Your task to perform on an android device: turn on location history Image 0: 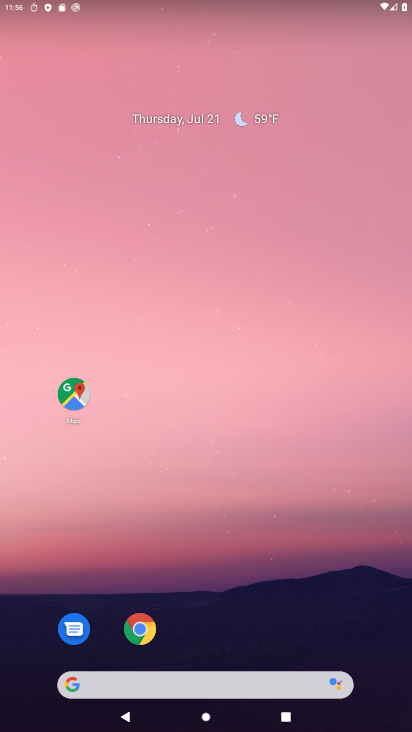
Step 0: drag from (241, 690) to (316, 86)
Your task to perform on an android device: turn on location history Image 1: 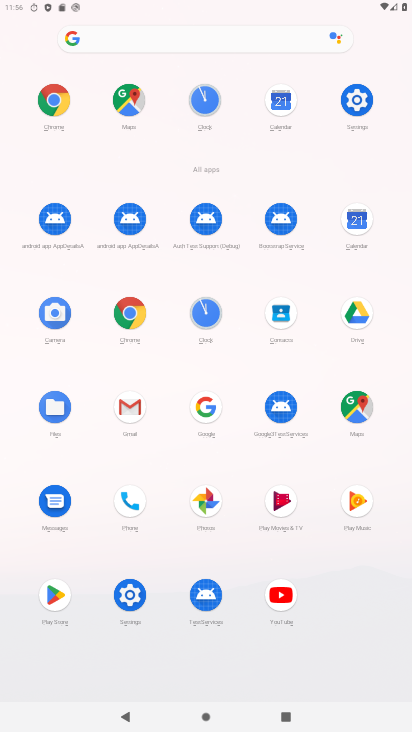
Step 1: click (345, 93)
Your task to perform on an android device: turn on location history Image 2: 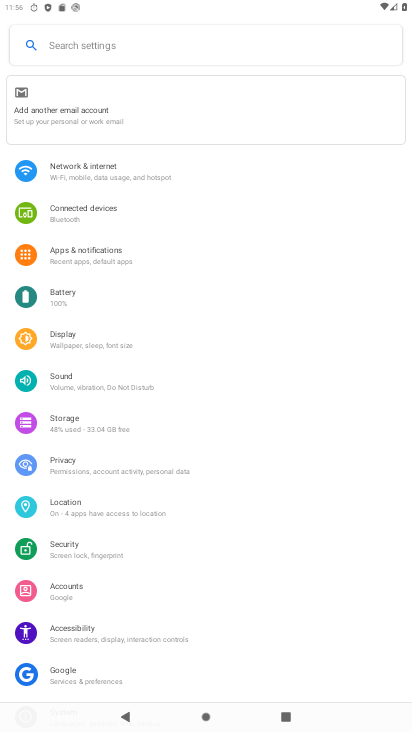
Step 2: click (95, 509)
Your task to perform on an android device: turn on location history Image 3: 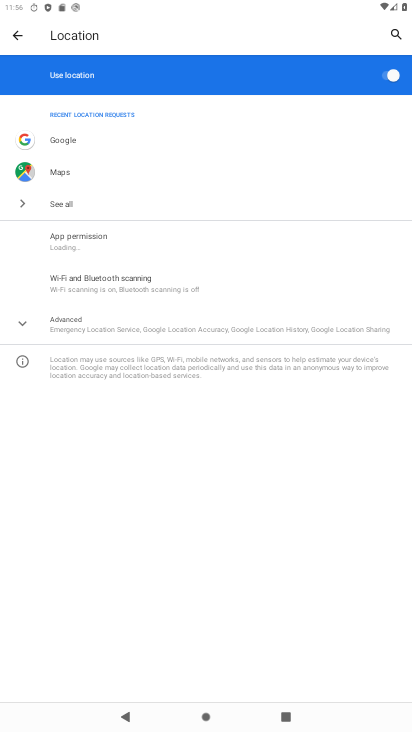
Step 3: click (152, 336)
Your task to perform on an android device: turn on location history Image 4: 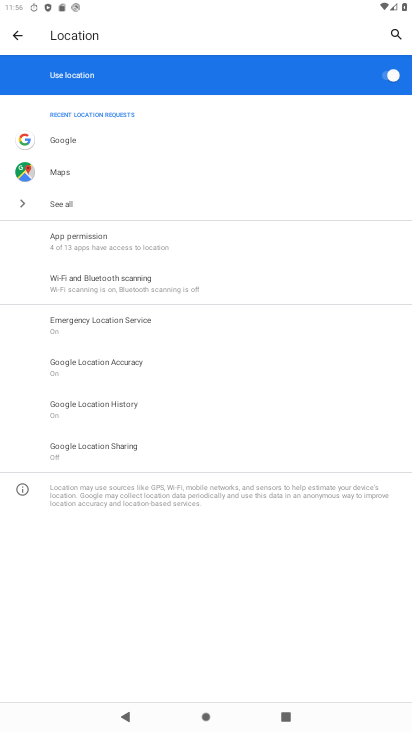
Step 4: click (125, 407)
Your task to perform on an android device: turn on location history Image 5: 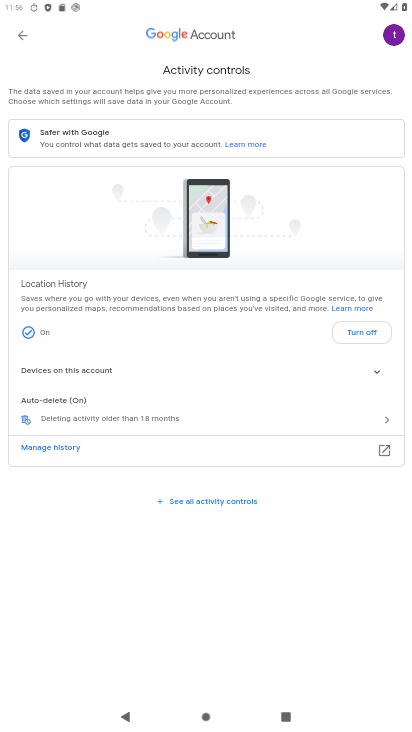
Step 5: task complete